Your task to perform on an android device: Search for the best selling jewelry on Etsy. Image 0: 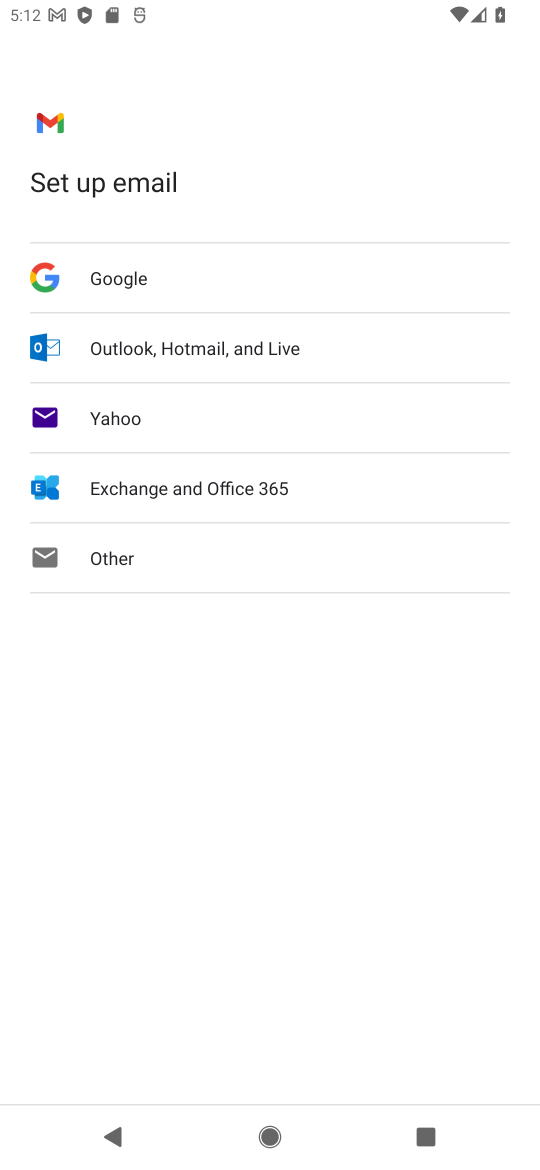
Step 0: press home button
Your task to perform on an android device: Search for the best selling jewelry on Etsy. Image 1: 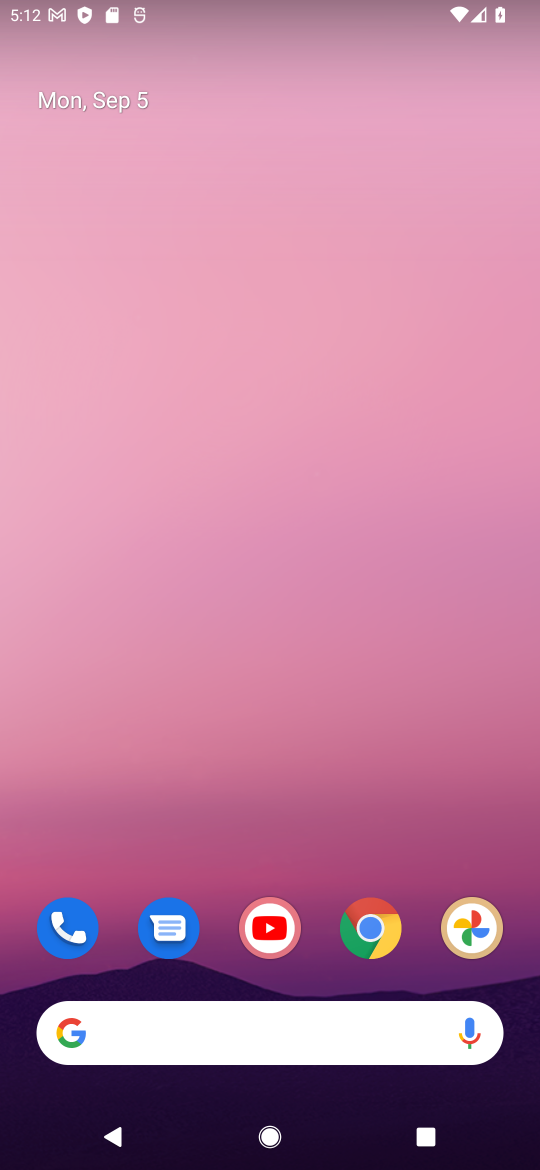
Step 1: click (372, 932)
Your task to perform on an android device: Search for the best selling jewelry on Etsy. Image 2: 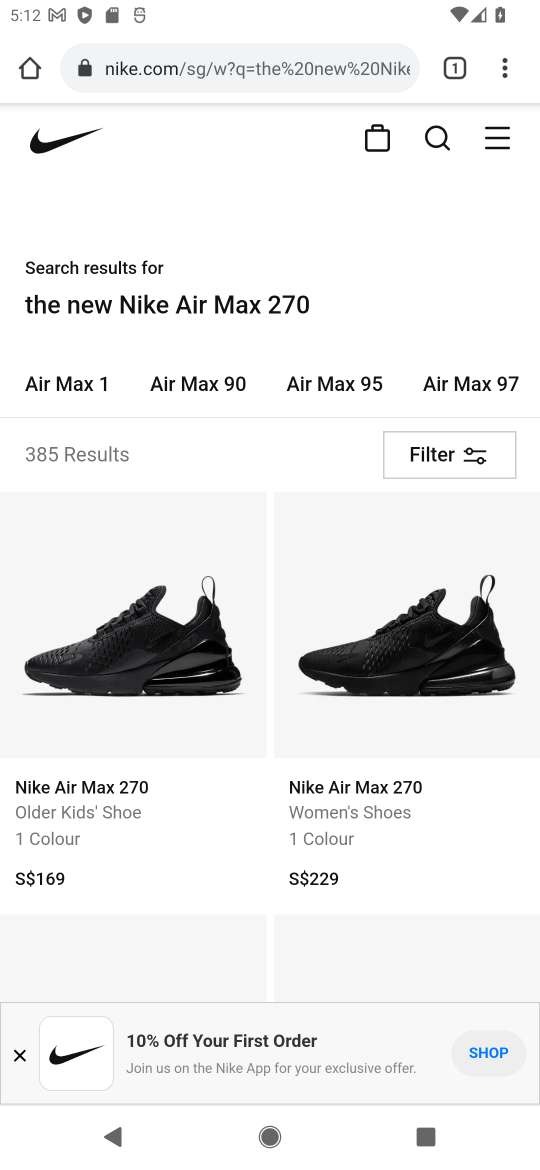
Step 2: click (198, 66)
Your task to perform on an android device: Search for the best selling jewelry on Etsy. Image 3: 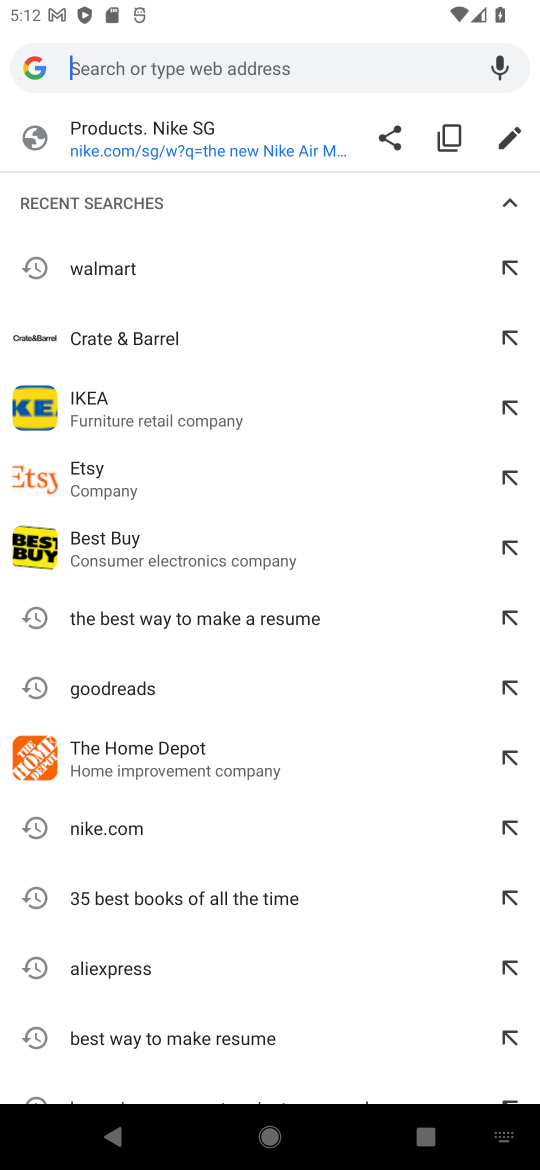
Step 3: type "Etsy"
Your task to perform on an android device: Search for the best selling jewelry on Etsy. Image 4: 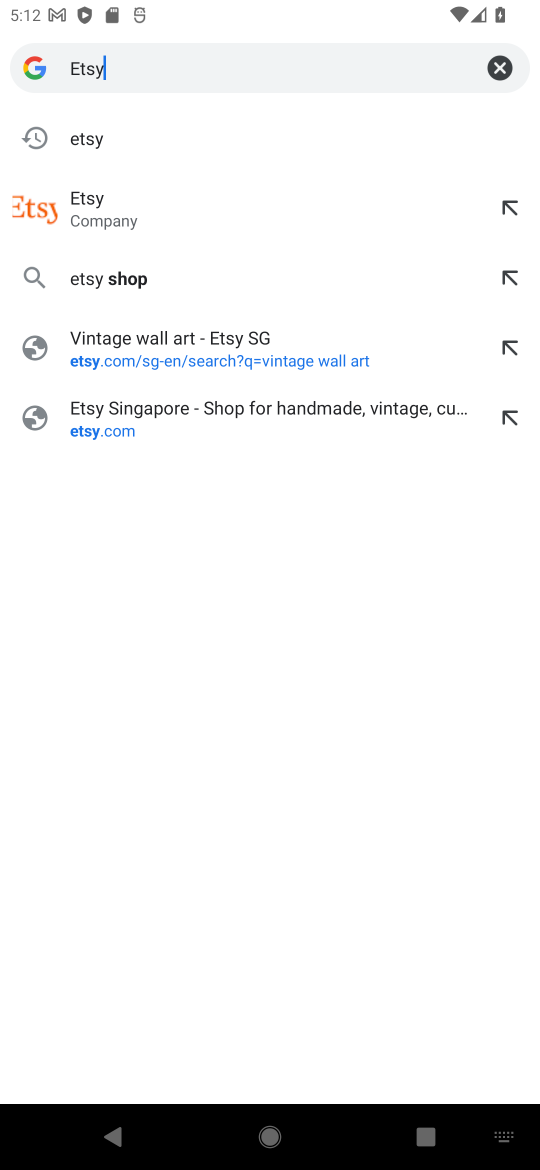
Step 4: click (79, 210)
Your task to perform on an android device: Search for the best selling jewelry on Etsy. Image 5: 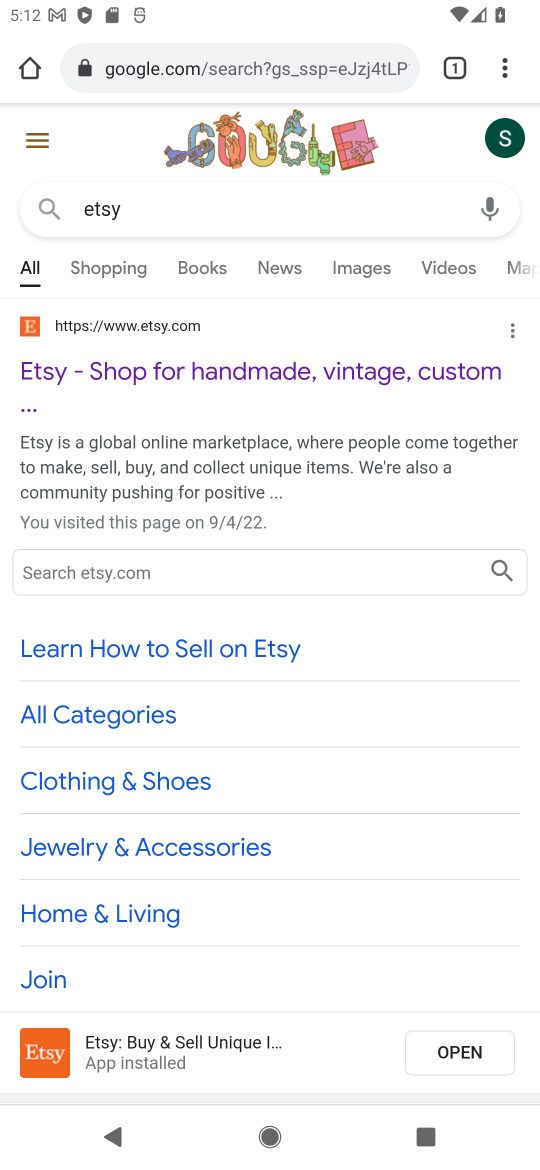
Step 5: click (132, 385)
Your task to perform on an android device: Search for the best selling jewelry on Etsy. Image 6: 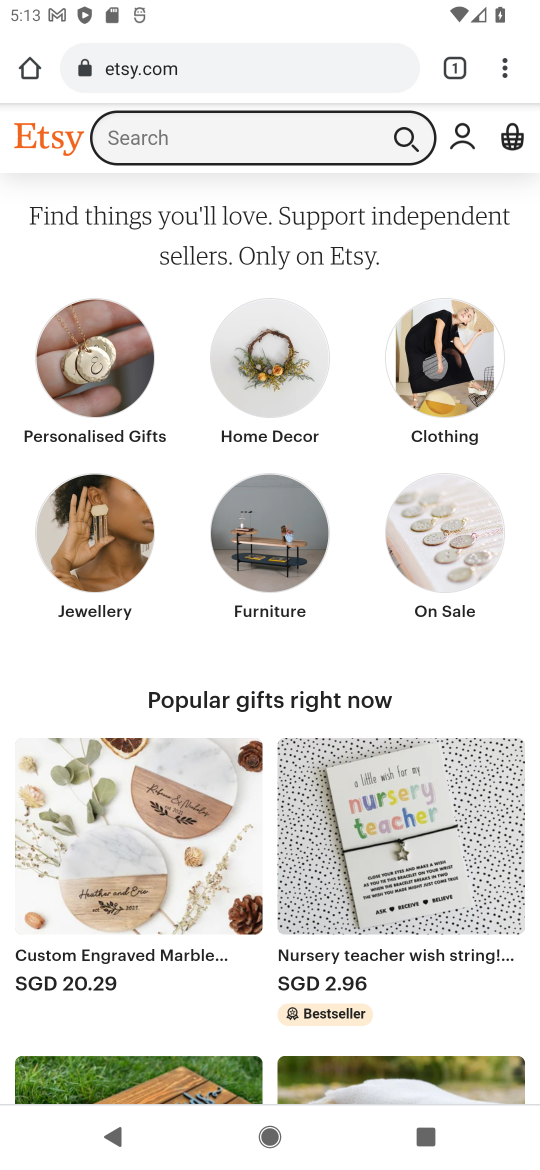
Step 6: click (201, 121)
Your task to perform on an android device: Search for the best selling jewelry on Etsy. Image 7: 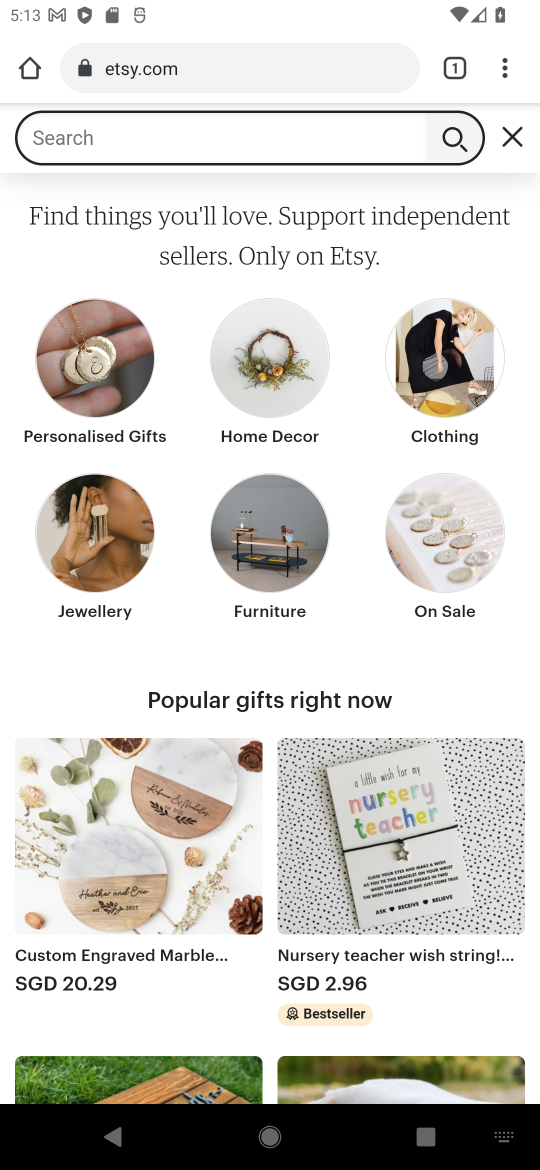
Step 7: type "the best selling jewelry"
Your task to perform on an android device: Search for the best selling jewelry on Etsy. Image 8: 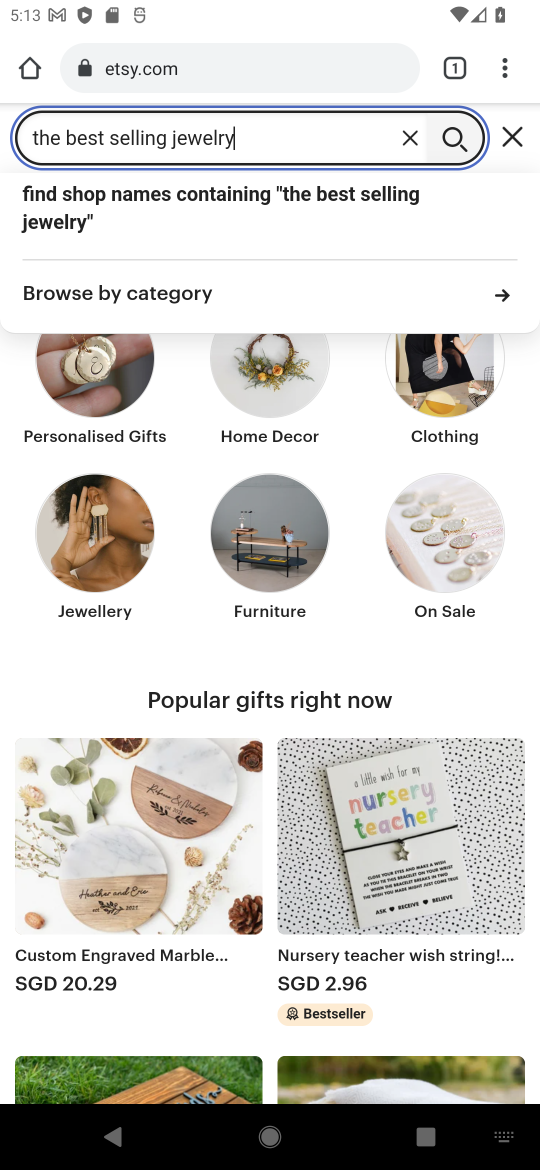
Step 8: click (129, 225)
Your task to perform on an android device: Search for the best selling jewelry on Etsy. Image 9: 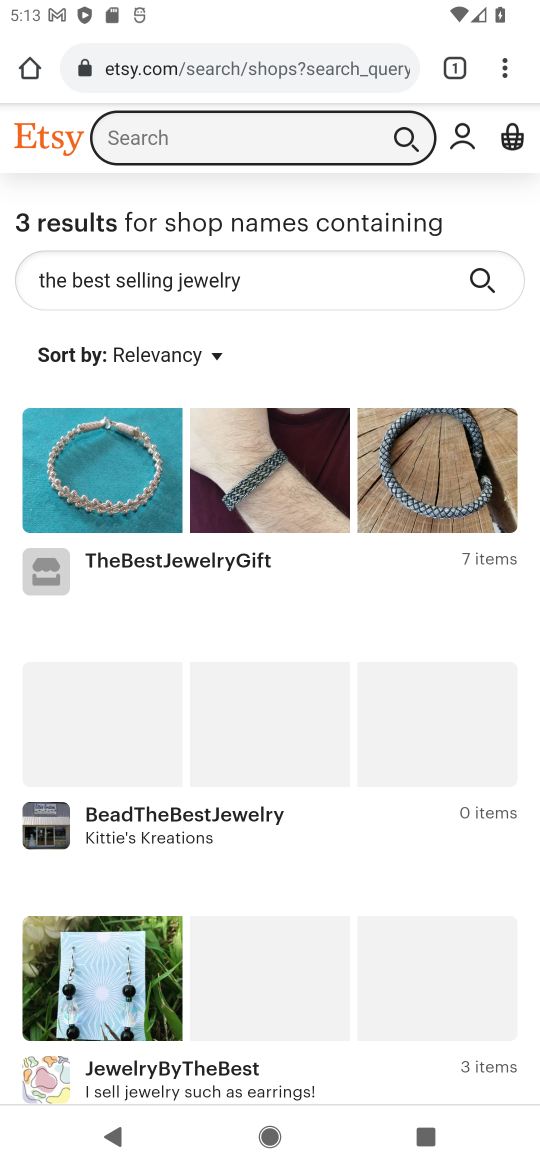
Step 9: task complete